Your task to perform on an android device: turn off smart reply in the gmail app Image 0: 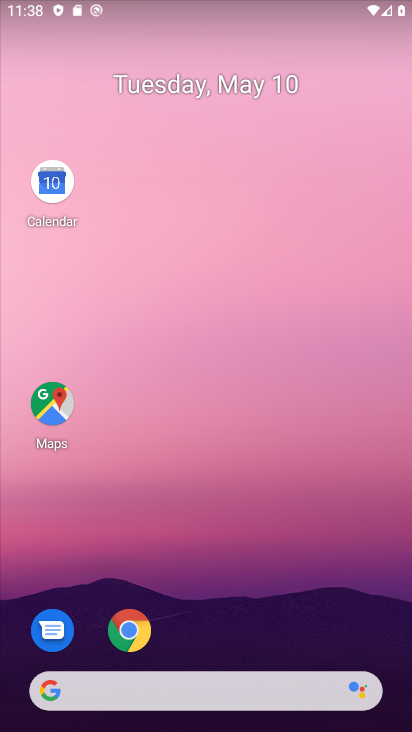
Step 0: drag from (221, 582) to (213, 135)
Your task to perform on an android device: turn off smart reply in the gmail app Image 1: 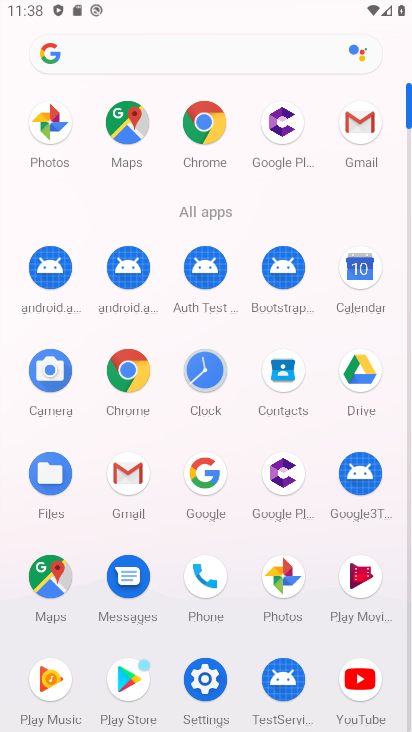
Step 1: click (134, 478)
Your task to perform on an android device: turn off smart reply in the gmail app Image 2: 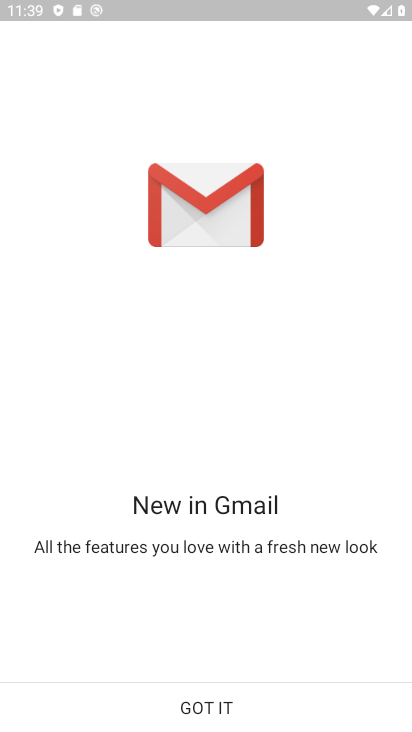
Step 2: click (257, 708)
Your task to perform on an android device: turn off smart reply in the gmail app Image 3: 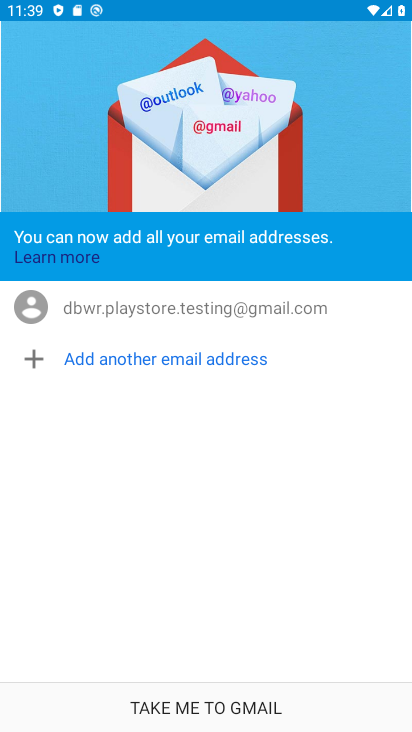
Step 3: click (257, 709)
Your task to perform on an android device: turn off smart reply in the gmail app Image 4: 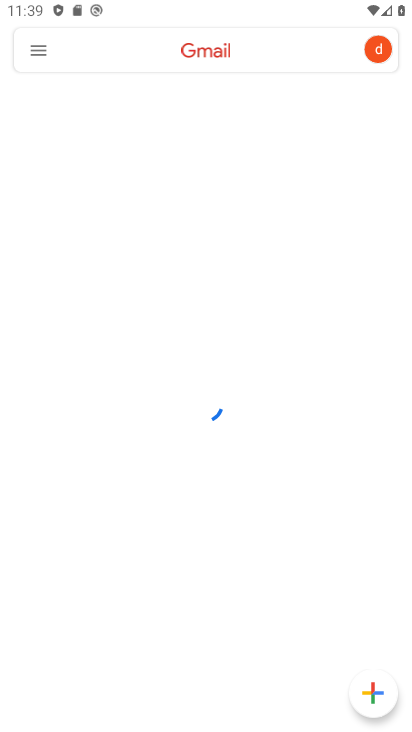
Step 4: click (33, 52)
Your task to perform on an android device: turn off smart reply in the gmail app Image 5: 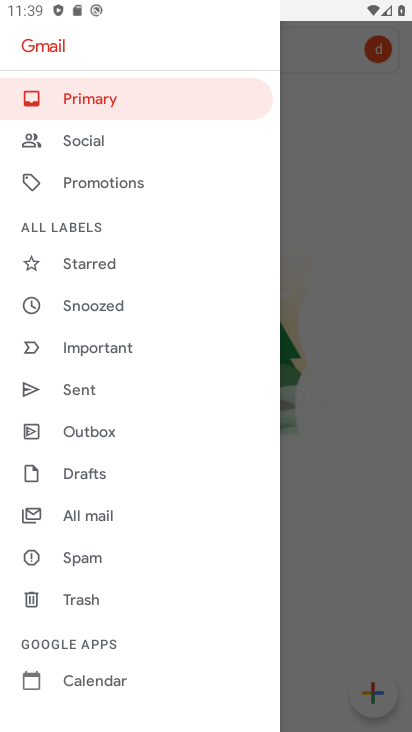
Step 5: drag from (134, 585) to (154, 218)
Your task to perform on an android device: turn off smart reply in the gmail app Image 6: 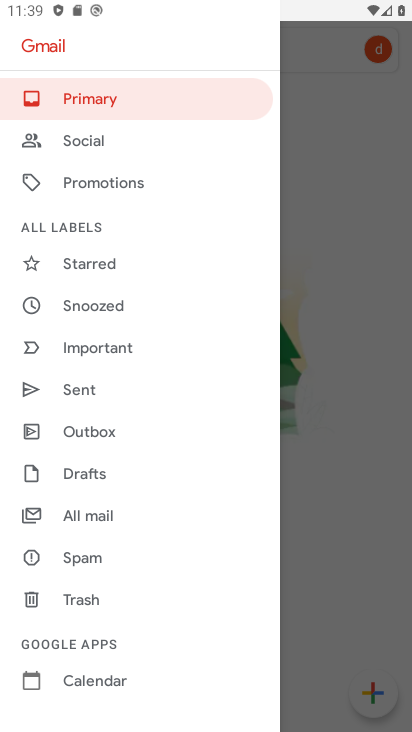
Step 6: drag from (118, 637) to (203, 243)
Your task to perform on an android device: turn off smart reply in the gmail app Image 7: 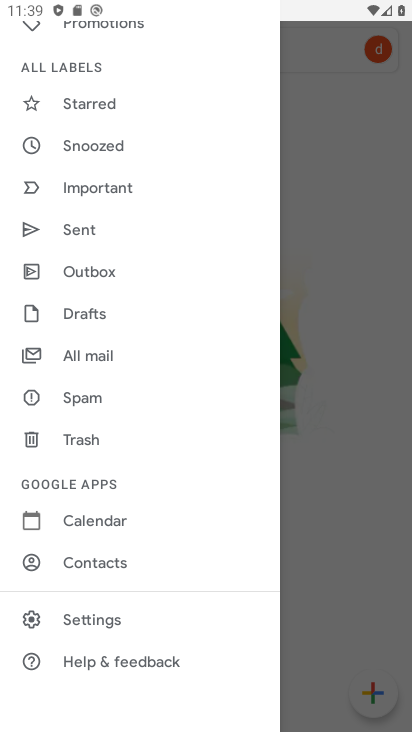
Step 7: click (141, 618)
Your task to perform on an android device: turn off smart reply in the gmail app Image 8: 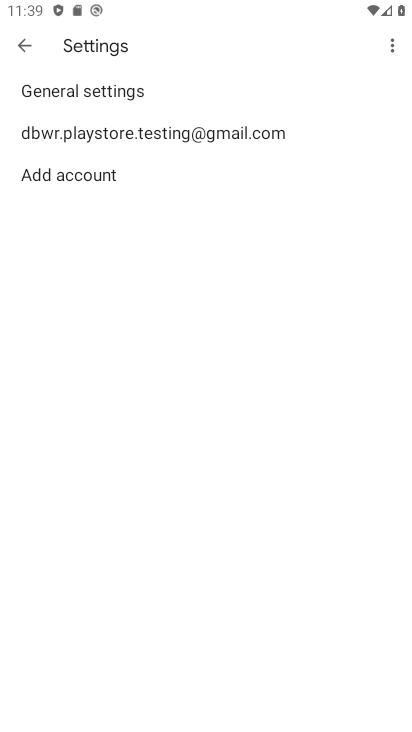
Step 8: click (172, 142)
Your task to perform on an android device: turn off smart reply in the gmail app Image 9: 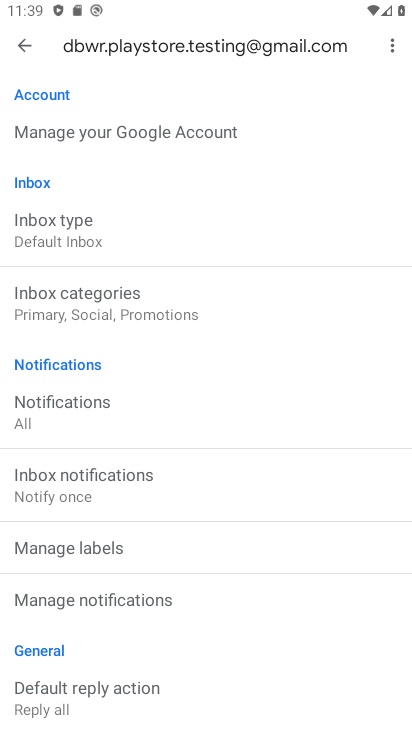
Step 9: drag from (204, 592) to (262, 139)
Your task to perform on an android device: turn off smart reply in the gmail app Image 10: 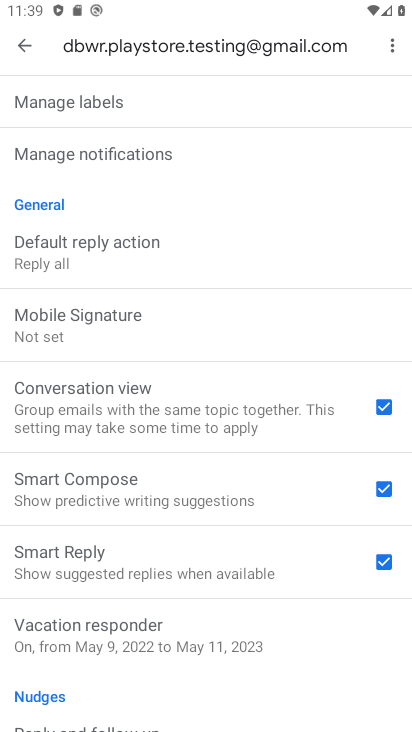
Step 10: click (386, 561)
Your task to perform on an android device: turn off smart reply in the gmail app Image 11: 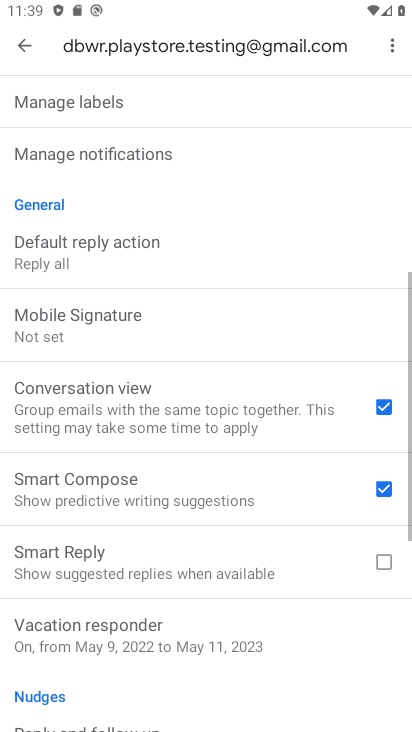
Step 11: task complete